Your task to perform on an android device: Open Google Chrome Image 0: 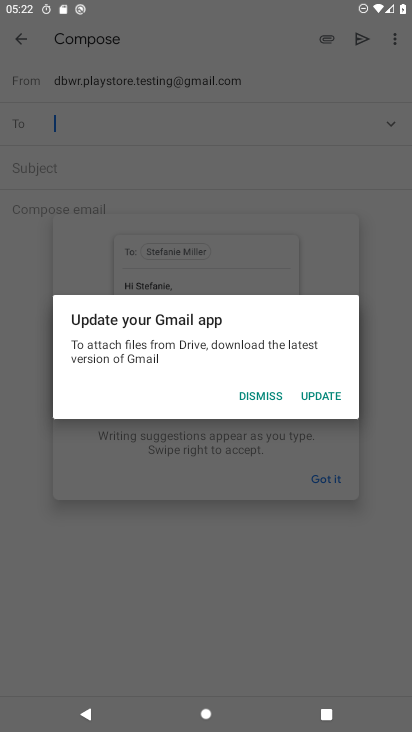
Step 0: press home button
Your task to perform on an android device: Open Google Chrome Image 1: 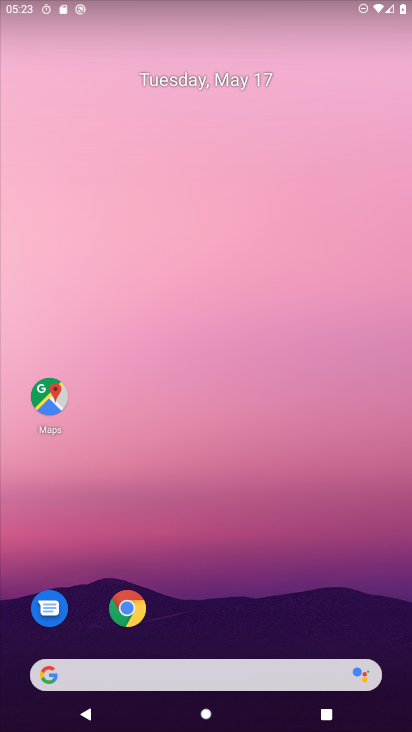
Step 1: click (134, 607)
Your task to perform on an android device: Open Google Chrome Image 2: 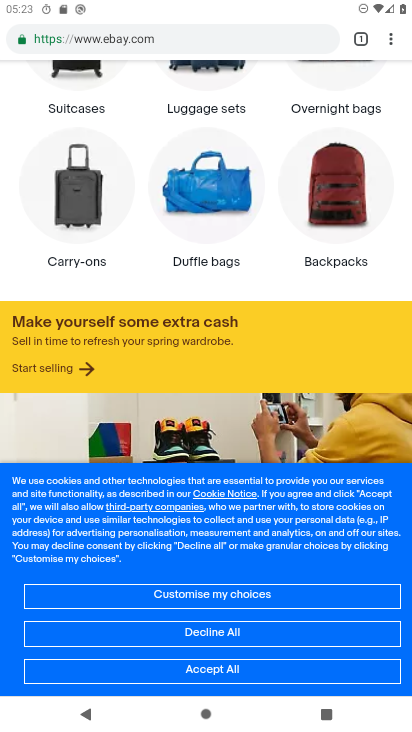
Step 2: task complete